Your task to perform on an android device: open a bookmark in the chrome app Image 0: 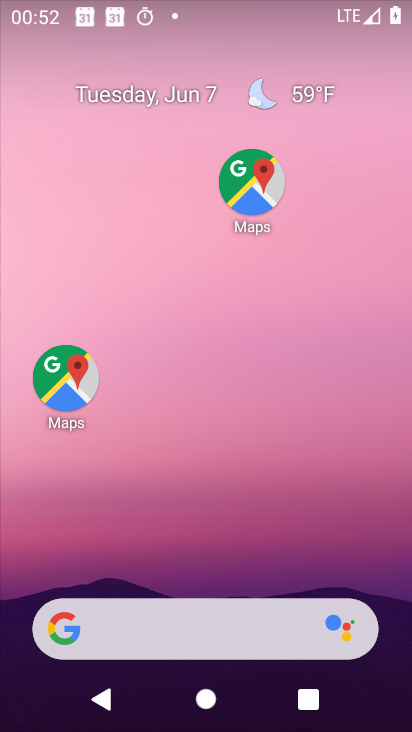
Step 0: drag from (187, 499) to (183, 100)
Your task to perform on an android device: open a bookmark in the chrome app Image 1: 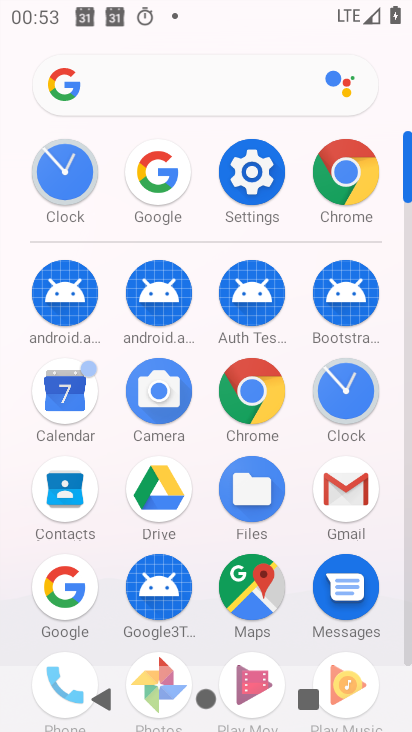
Step 1: click (255, 387)
Your task to perform on an android device: open a bookmark in the chrome app Image 2: 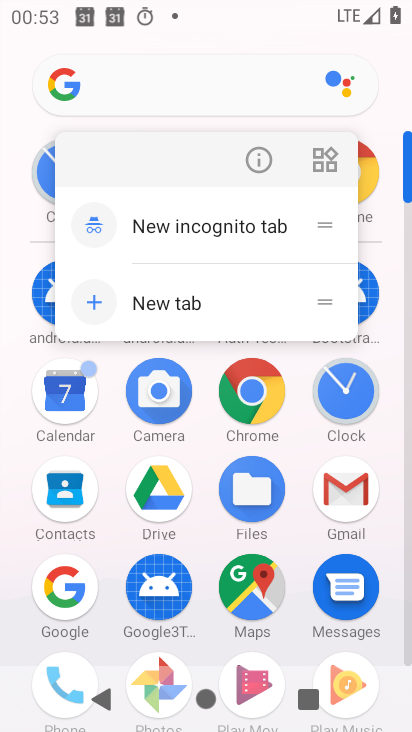
Step 2: click (258, 387)
Your task to perform on an android device: open a bookmark in the chrome app Image 3: 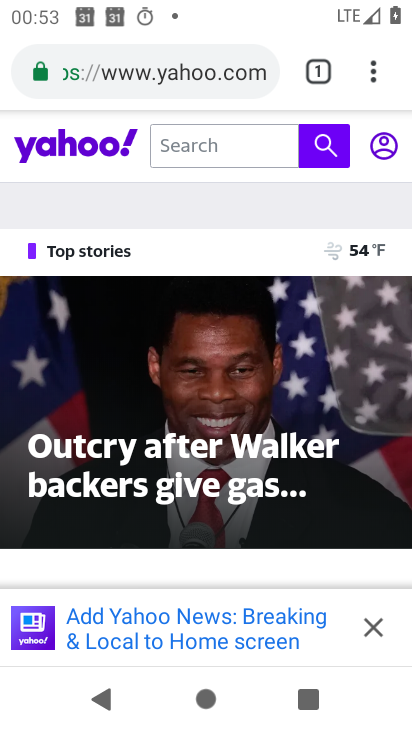
Step 3: click (367, 78)
Your task to perform on an android device: open a bookmark in the chrome app Image 4: 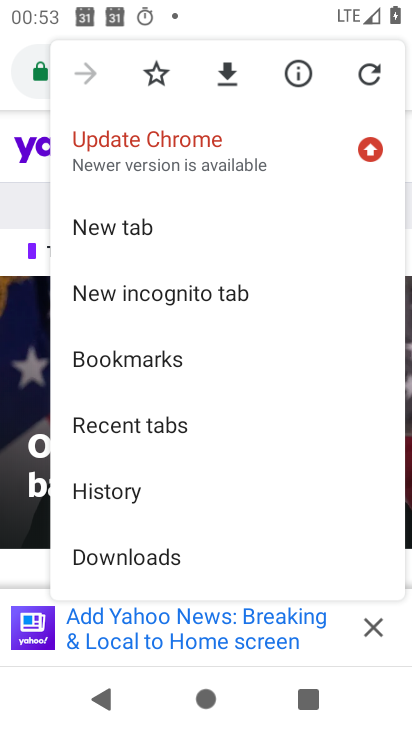
Step 4: click (145, 353)
Your task to perform on an android device: open a bookmark in the chrome app Image 5: 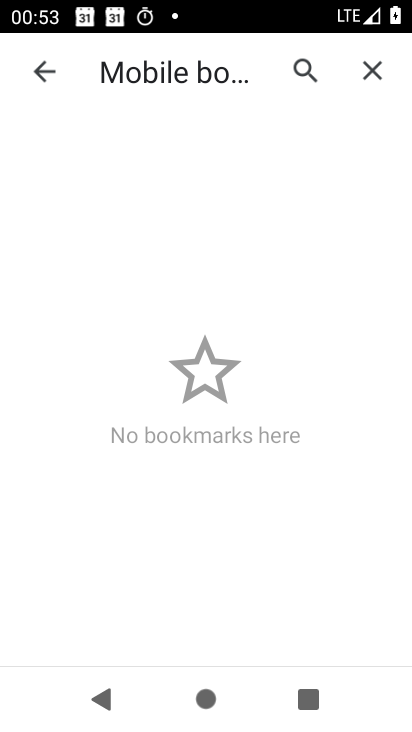
Step 5: task complete